Your task to perform on an android device: Show me the alarms in the clock app Image 0: 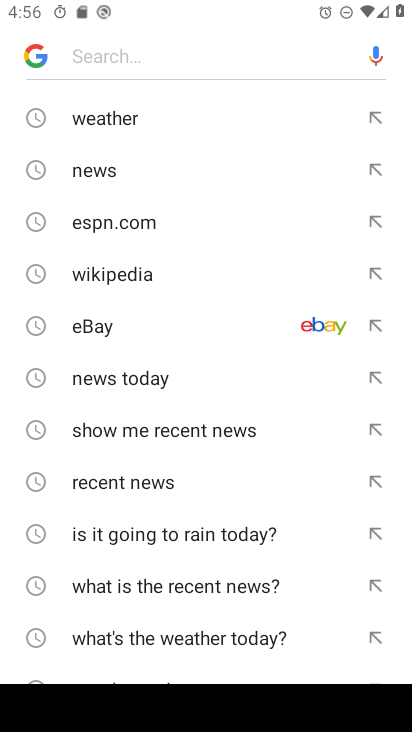
Step 0: press home button
Your task to perform on an android device: Show me the alarms in the clock app Image 1: 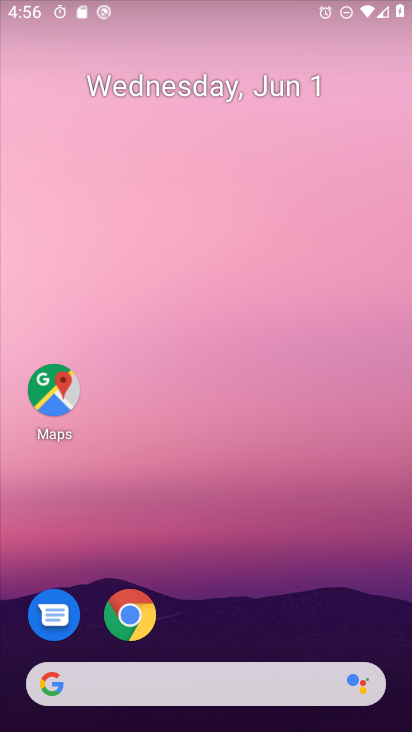
Step 1: drag from (368, 687) to (344, 71)
Your task to perform on an android device: Show me the alarms in the clock app Image 2: 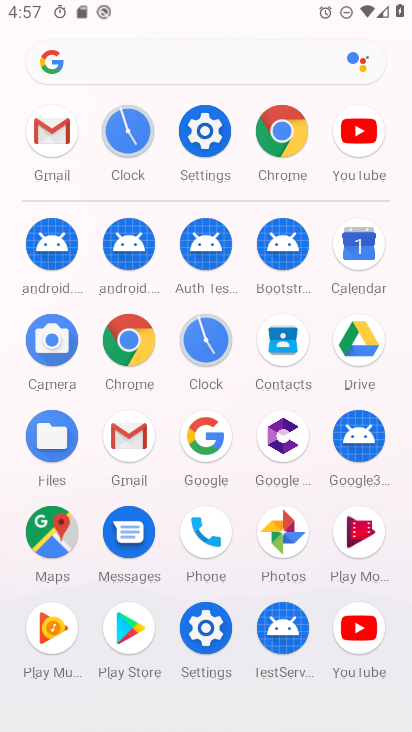
Step 2: click (217, 334)
Your task to perform on an android device: Show me the alarms in the clock app Image 3: 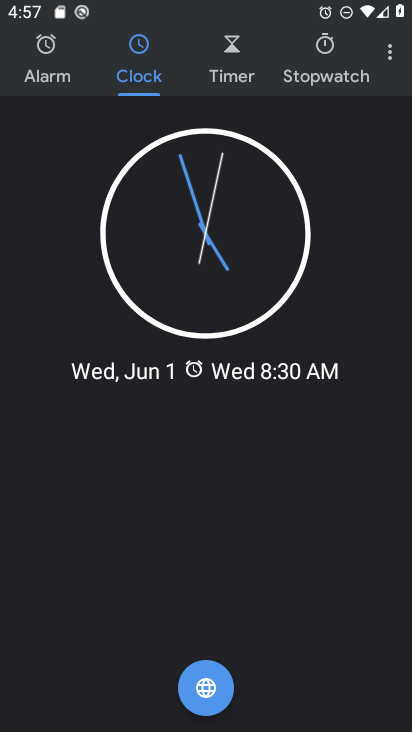
Step 3: click (41, 59)
Your task to perform on an android device: Show me the alarms in the clock app Image 4: 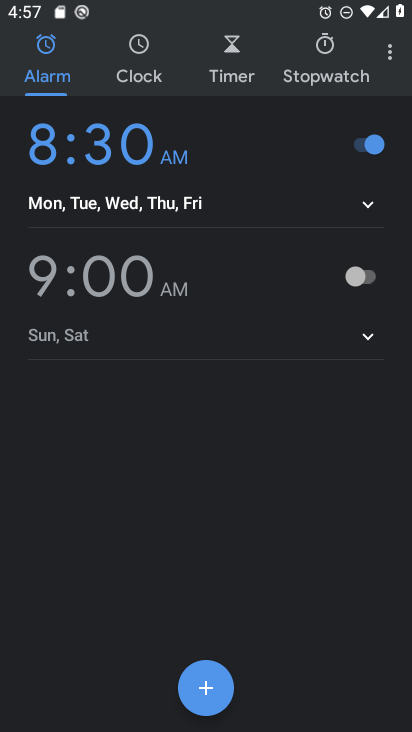
Step 4: task complete